Your task to perform on an android device: check the backup settings in the google photos Image 0: 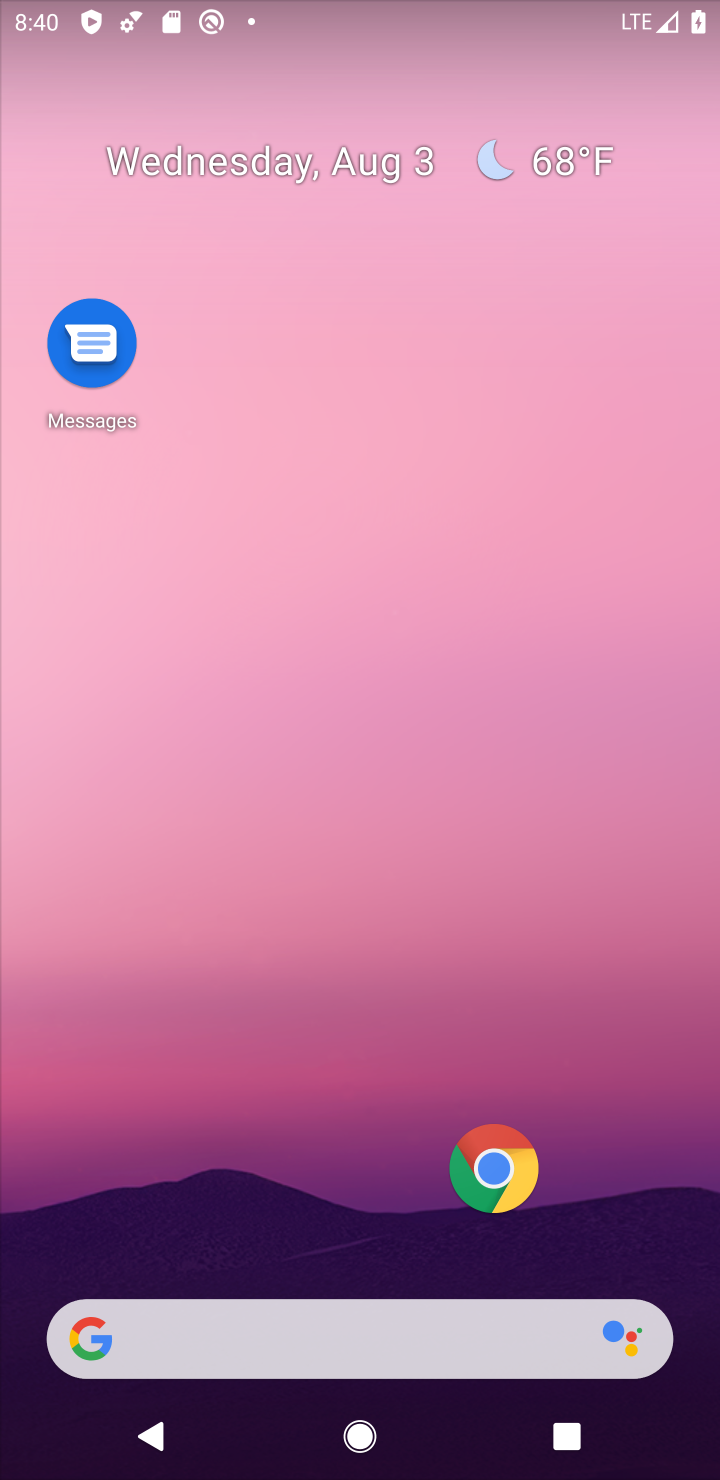
Step 0: drag from (374, 1271) to (396, 88)
Your task to perform on an android device: check the backup settings in the google photos Image 1: 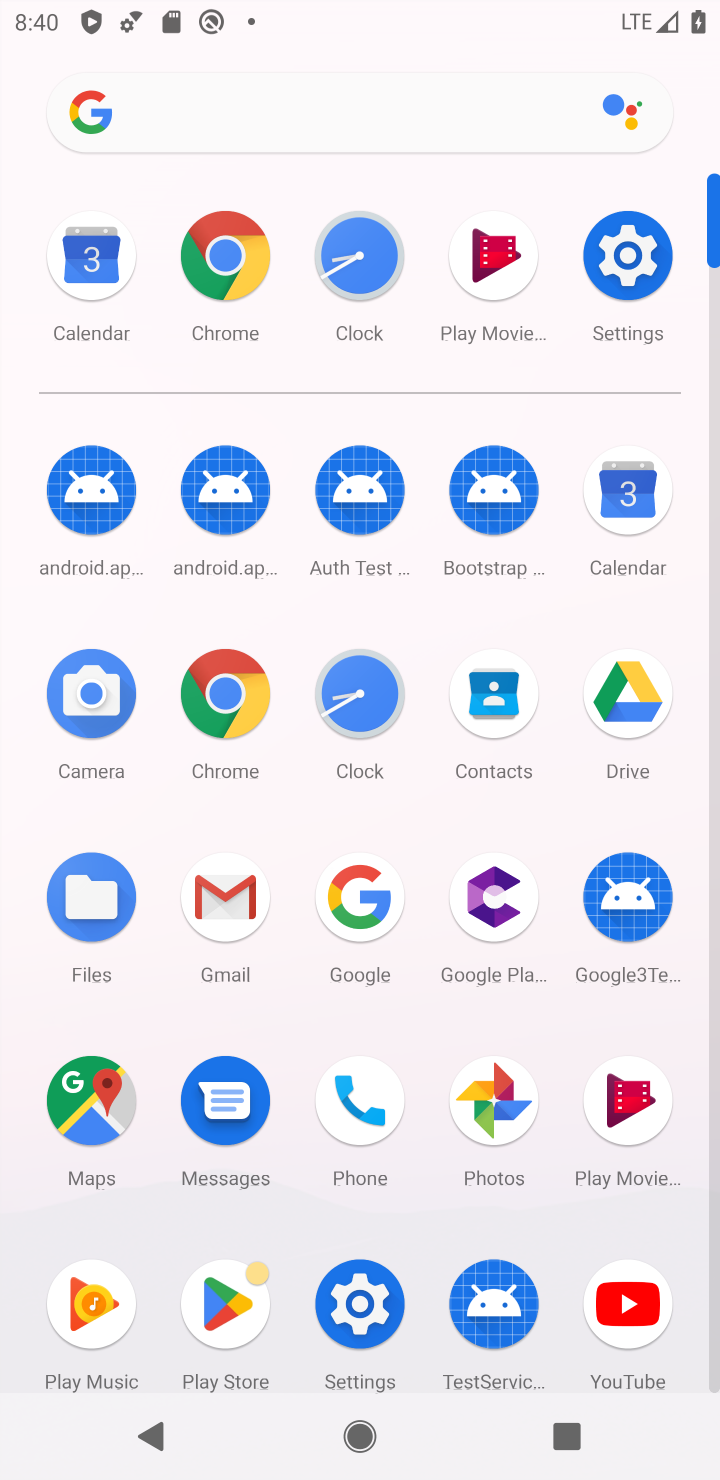
Step 1: click (467, 1114)
Your task to perform on an android device: check the backup settings in the google photos Image 2: 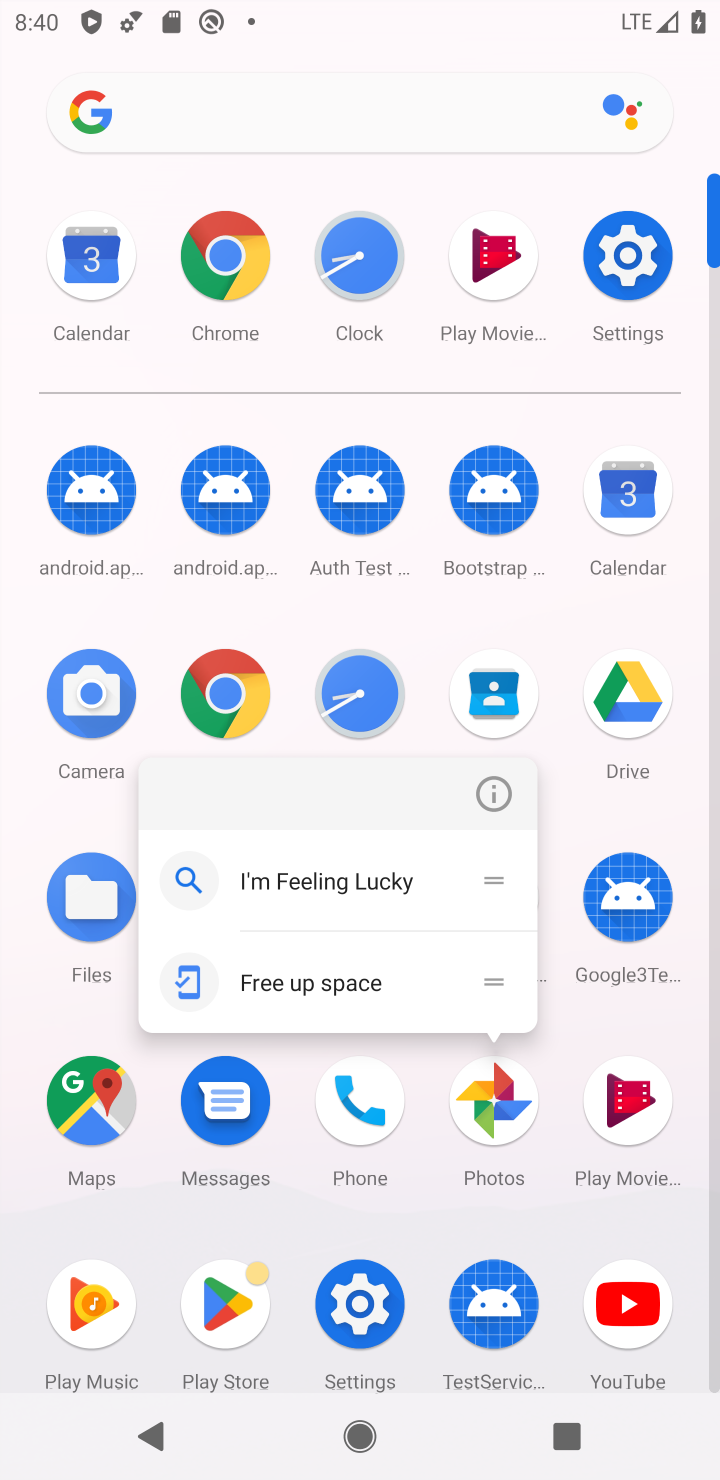
Step 2: click (467, 1114)
Your task to perform on an android device: check the backup settings in the google photos Image 3: 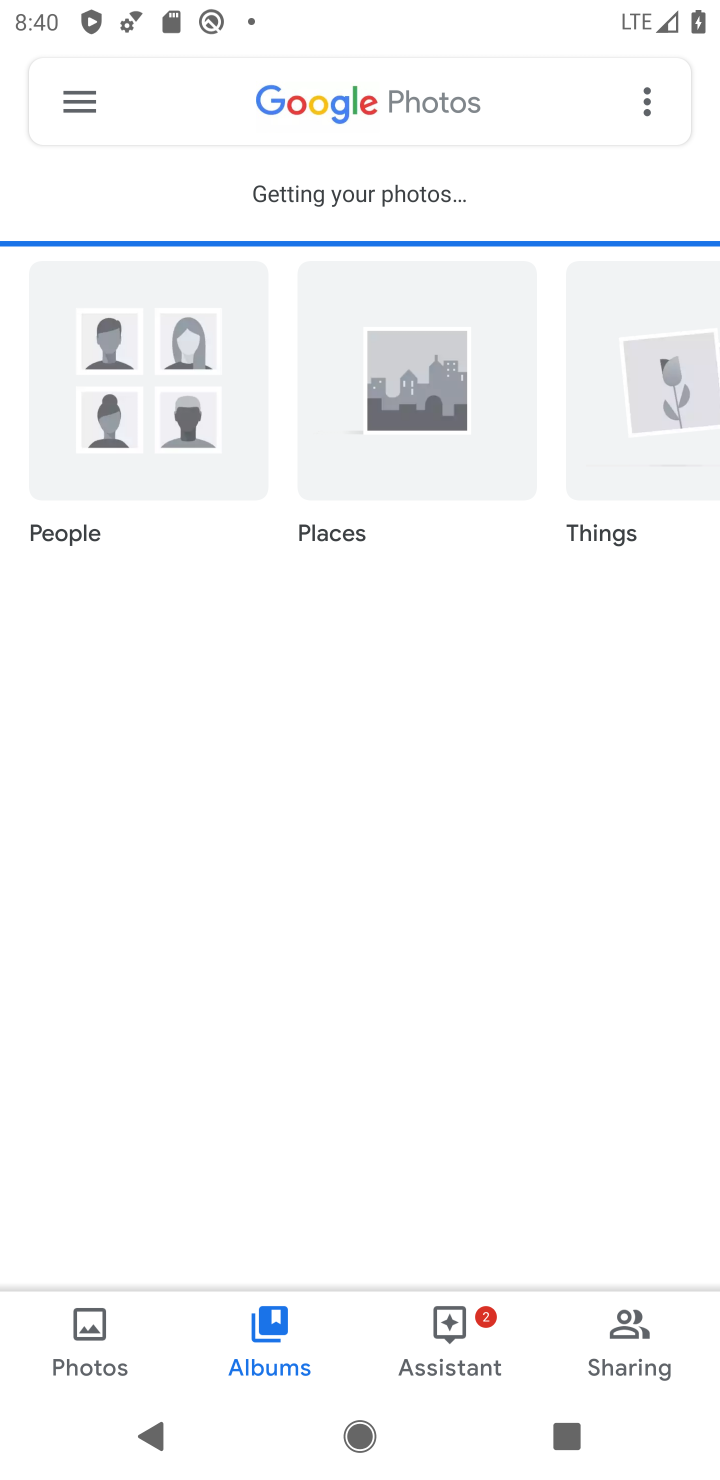
Step 3: click (52, 118)
Your task to perform on an android device: check the backup settings in the google photos Image 4: 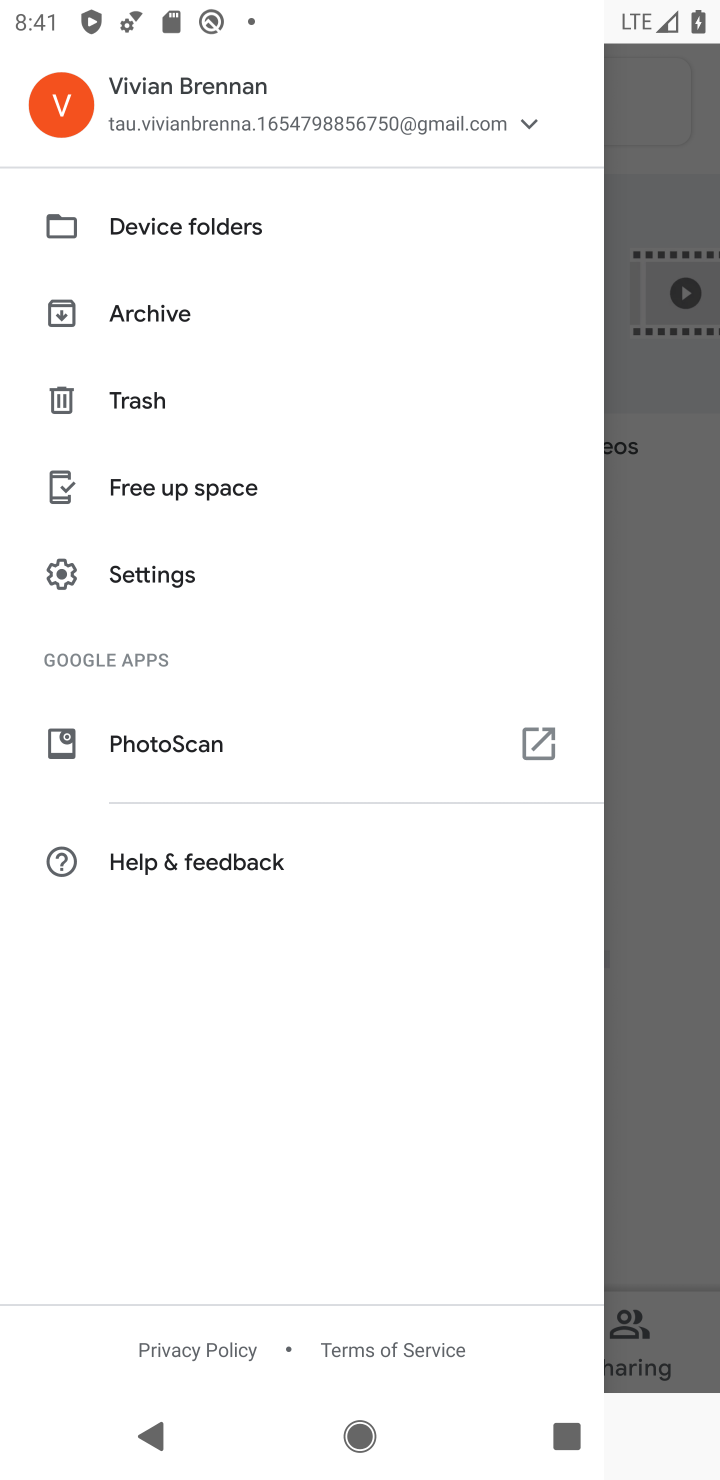
Step 4: click (146, 577)
Your task to perform on an android device: check the backup settings in the google photos Image 5: 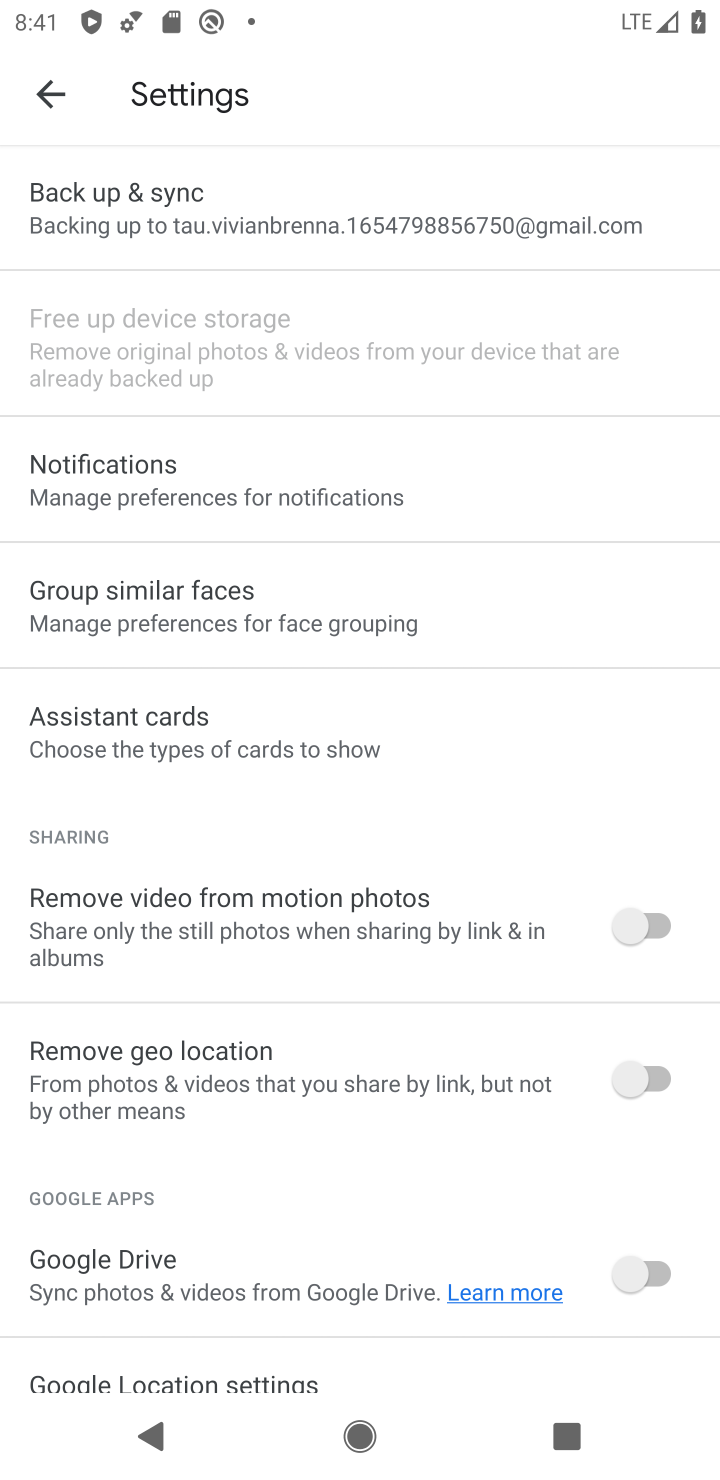
Step 5: click (150, 221)
Your task to perform on an android device: check the backup settings in the google photos Image 6: 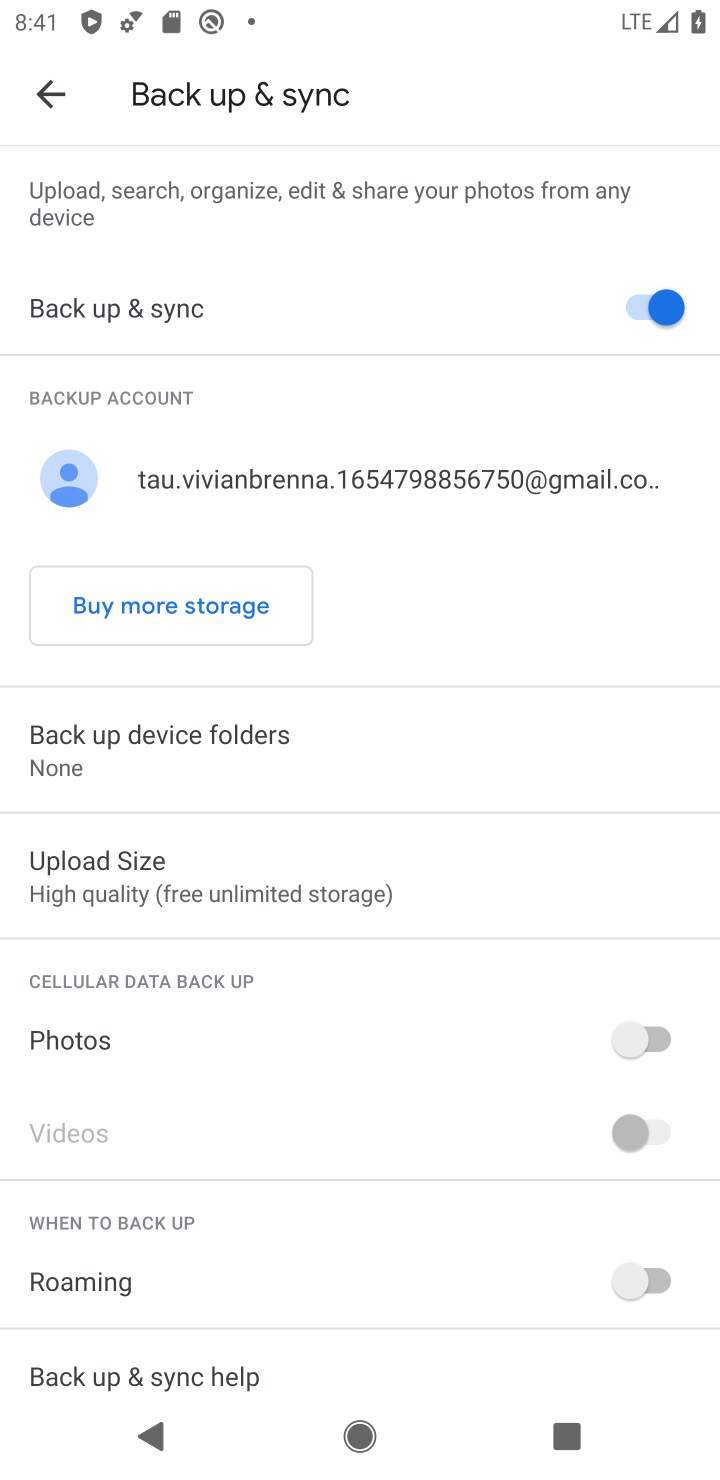
Step 6: task complete